Your task to perform on an android device: change alarm snooze length Image 0: 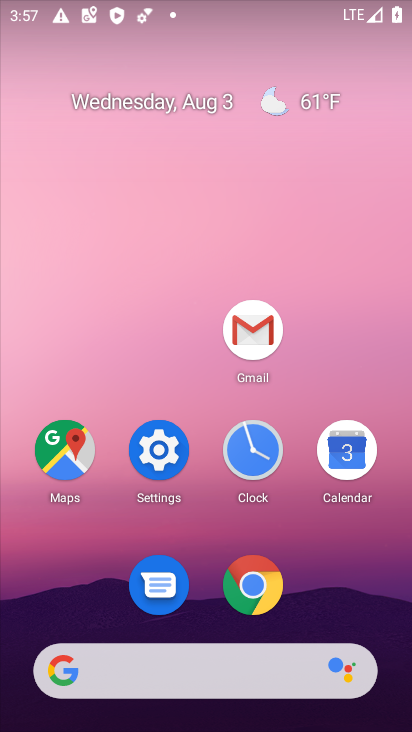
Step 0: click (208, 524)
Your task to perform on an android device: change alarm snooze length Image 1: 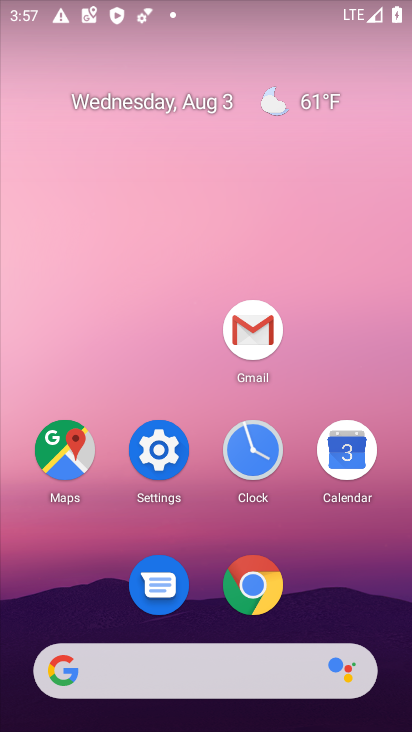
Step 1: click (252, 459)
Your task to perform on an android device: change alarm snooze length Image 2: 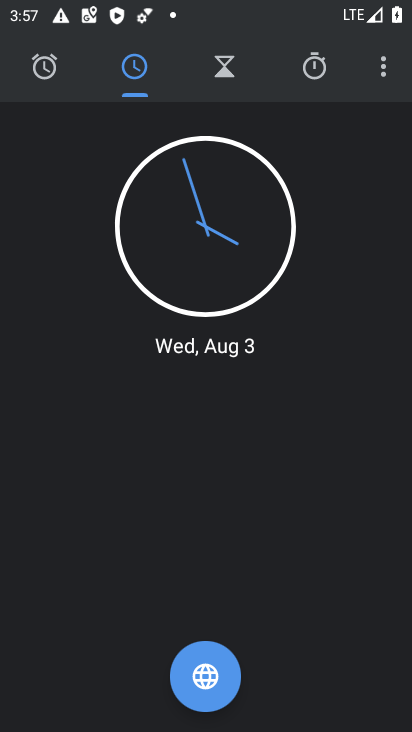
Step 2: click (383, 69)
Your task to perform on an android device: change alarm snooze length Image 3: 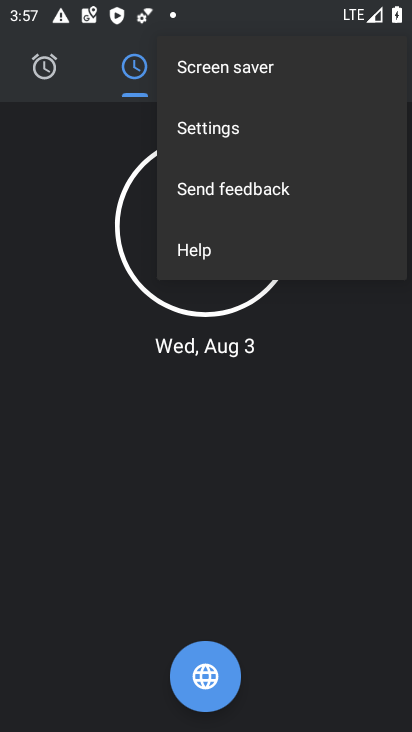
Step 3: click (213, 119)
Your task to perform on an android device: change alarm snooze length Image 4: 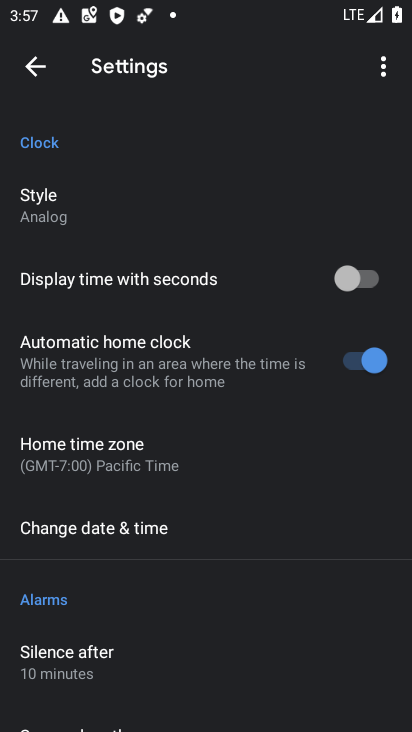
Step 4: drag from (204, 509) to (194, 195)
Your task to perform on an android device: change alarm snooze length Image 5: 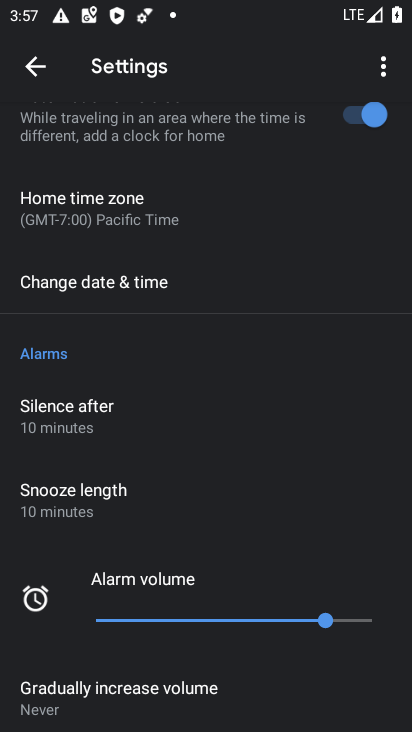
Step 5: click (92, 492)
Your task to perform on an android device: change alarm snooze length Image 6: 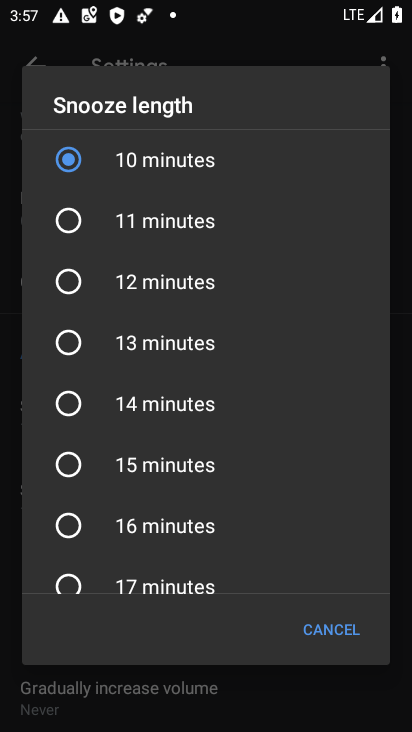
Step 6: click (71, 281)
Your task to perform on an android device: change alarm snooze length Image 7: 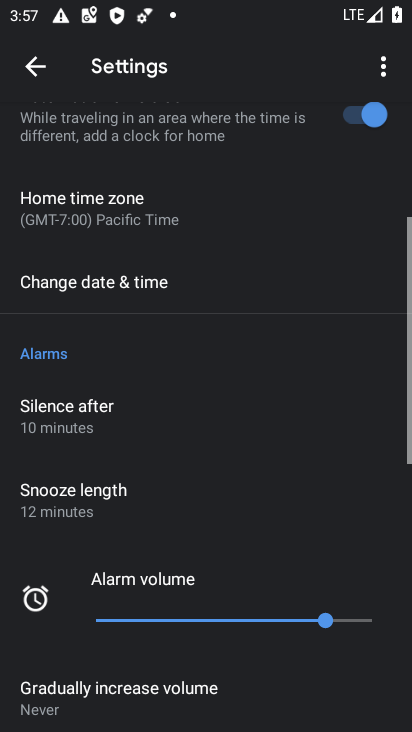
Step 7: task complete